Your task to perform on an android device: open device folders in google photos Image 0: 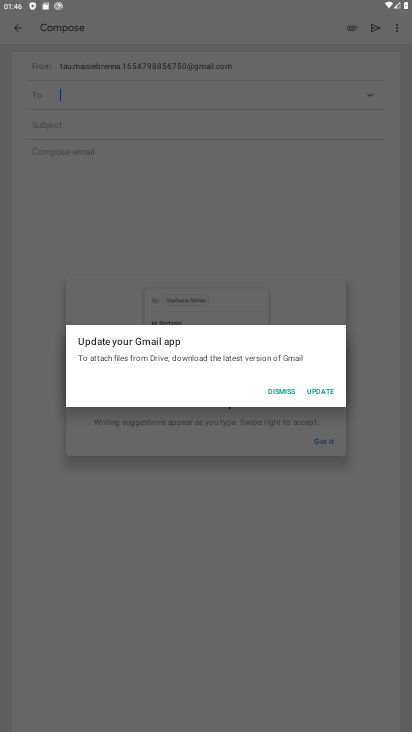
Step 0: press home button
Your task to perform on an android device: open device folders in google photos Image 1: 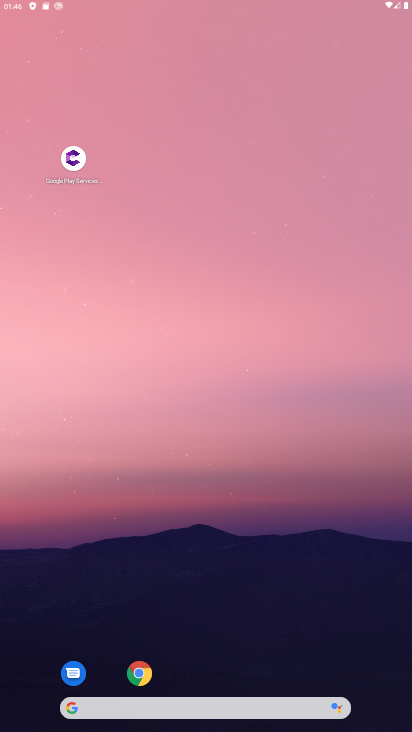
Step 1: drag from (166, 590) to (200, 284)
Your task to perform on an android device: open device folders in google photos Image 2: 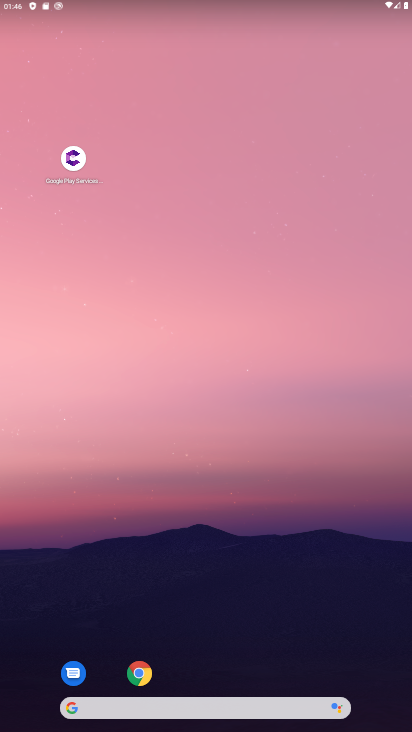
Step 2: drag from (219, 561) to (219, 230)
Your task to perform on an android device: open device folders in google photos Image 3: 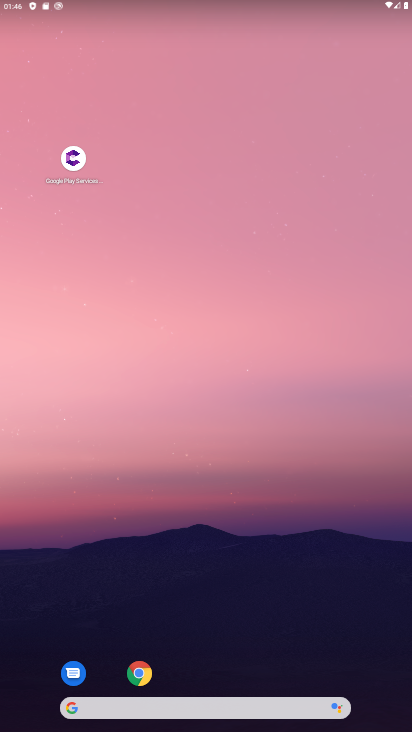
Step 3: drag from (209, 682) to (223, 163)
Your task to perform on an android device: open device folders in google photos Image 4: 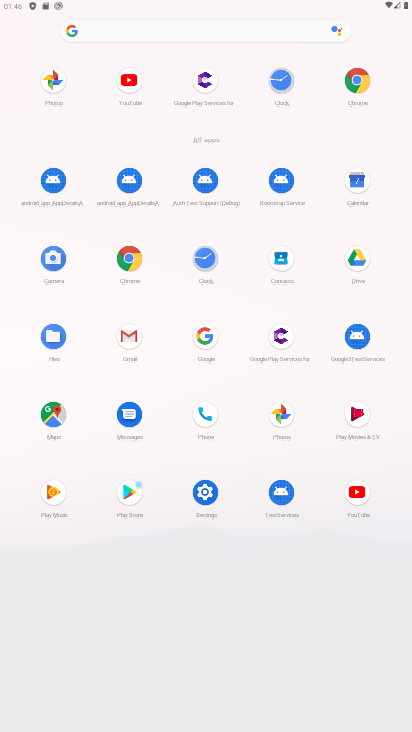
Step 4: click (55, 77)
Your task to perform on an android device: open device folders in google photos Image 5: 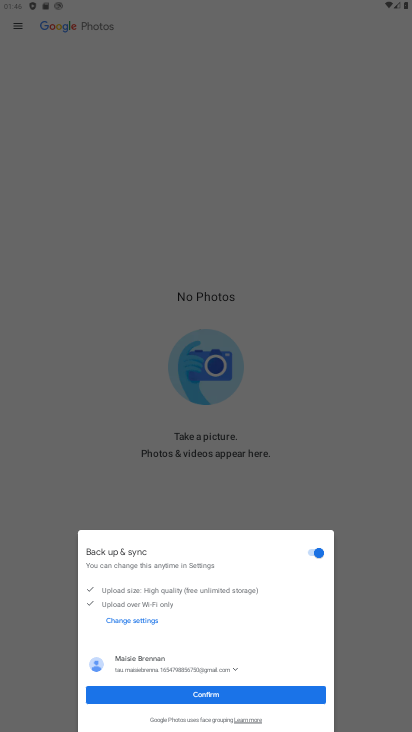
Step 5: click (192, 689)
Your task to perform on an android device: open device folders in google photos Image 6: 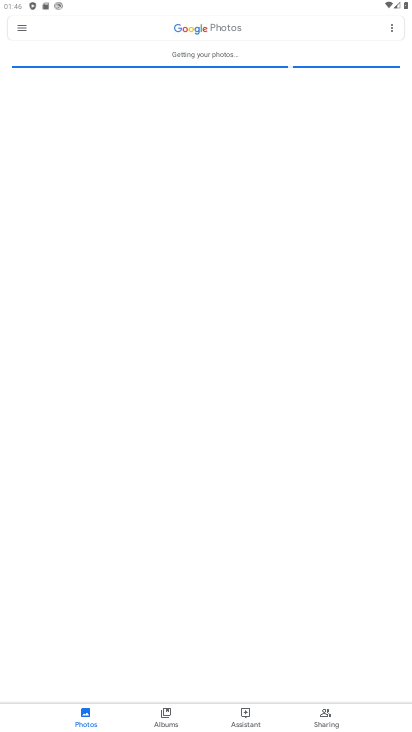
Step 6: click (18, 33)
Your task to perform on an android device: open device folders in google photos Image 7: 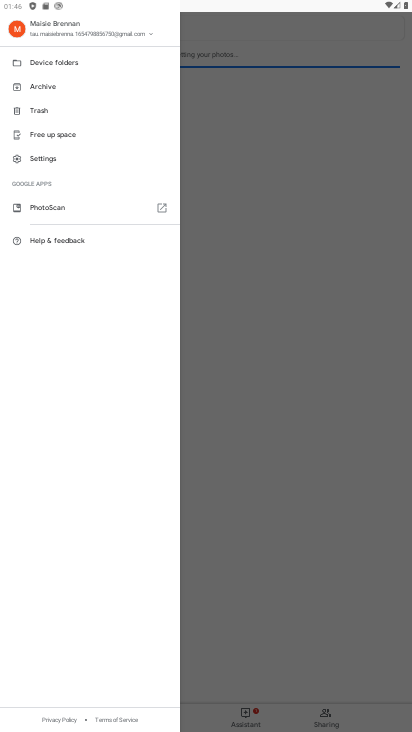
Step 7: click (86, 67)
Your task to perform on an android device: open device folders in google photos Image 8: 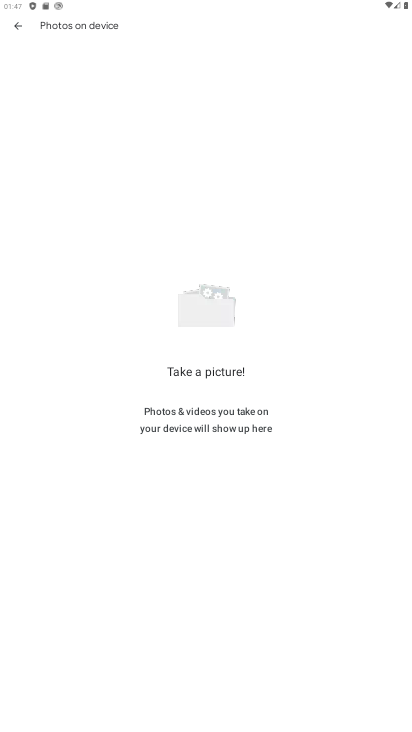
Step 8: task complete